Your task to perform on an android device: toggle translation in the chrome app Image 0: 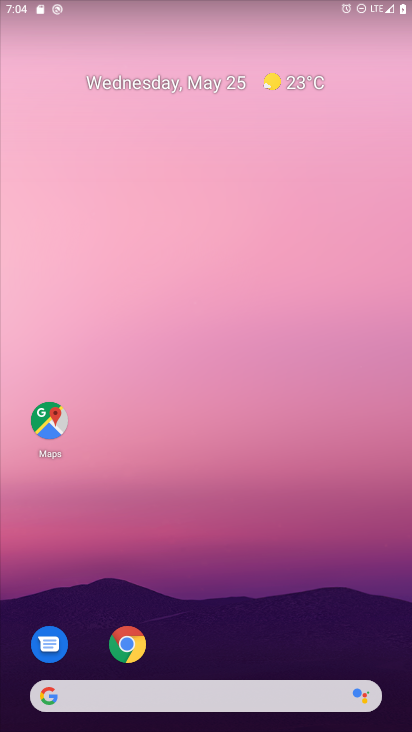
Step 0: drag from (326, 638) to (346, 94)
Your task to perform on an android device: toggle translation in the chrome app Image 1: 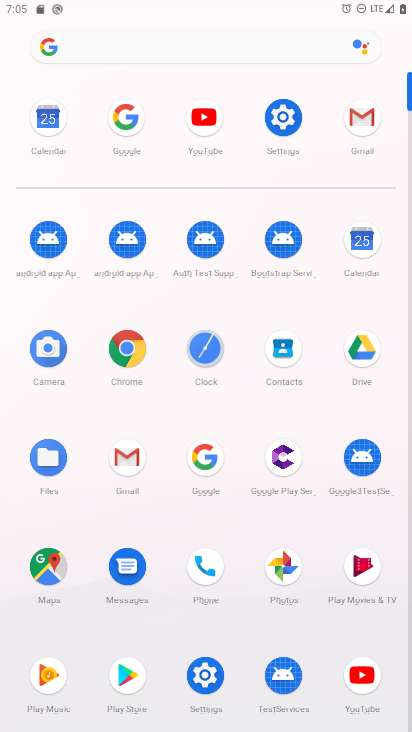
Step 1: click (133, 360)
Your task to perform on an android device: toggle translation in the chrome app Image 2: 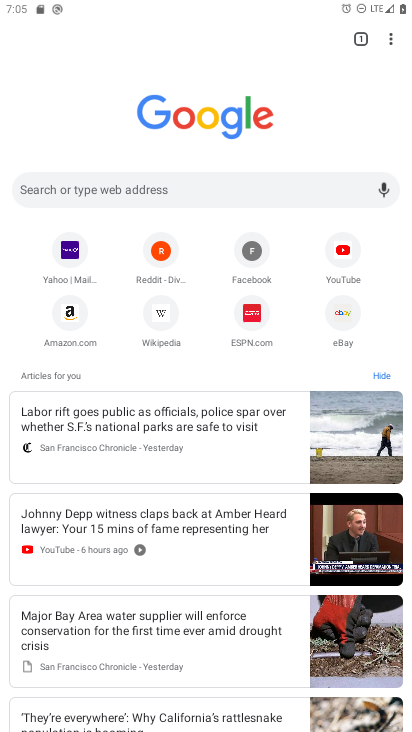
Step 2: click (383, 33)
Your task to perform on an android device: toggle translation in the chrome app Image 3: 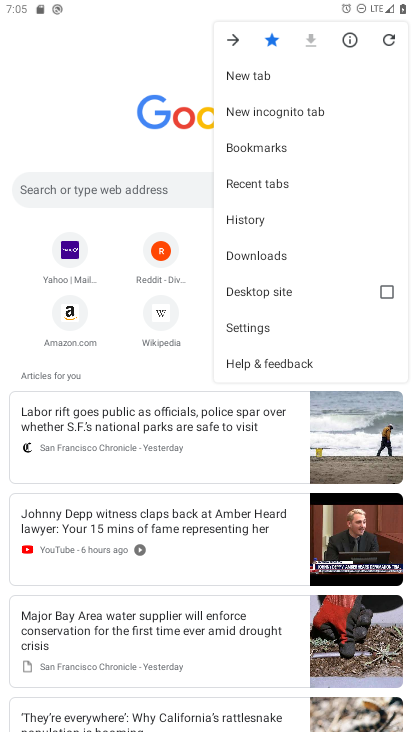
Step 3: click (327, 321)
Your task to perform on an android device: toggle translation in the chrome app Image 4: 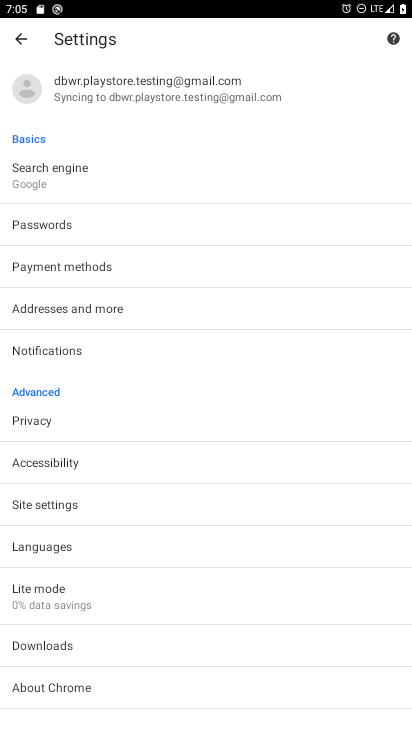
Step 4: click (89, 539)
Your task to perform on an android device: toggle translation in the chrome app Image 5: 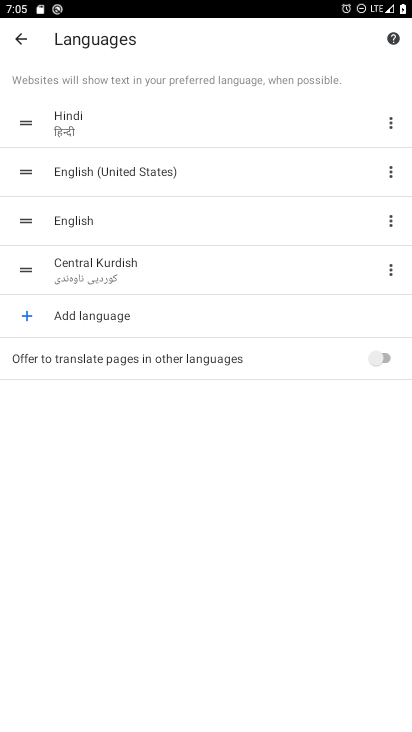
Step 5: click (381, 358)
Your task to perform on an android device: toggle translation in the chrome app Image 6: 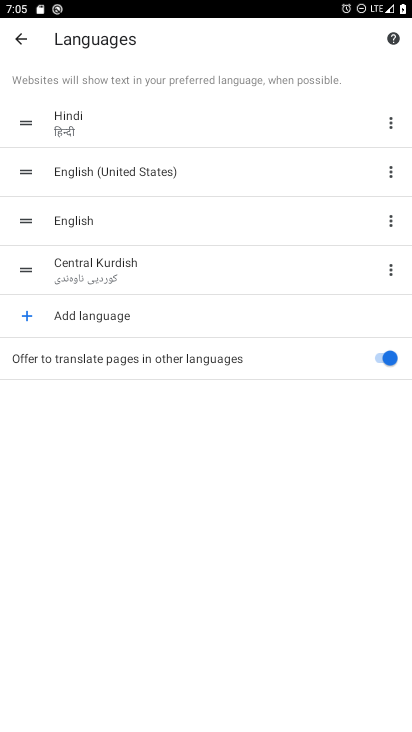
Step 6: task complete